Your task to perform on an android device: Open Yahoo.com Image 0: 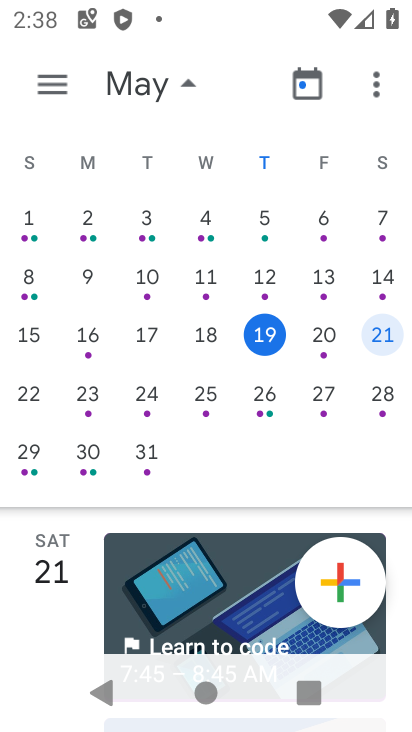
Step 0: drag from (231, 511) to (274, 184)
Your task to perform on an android device: Open Yahoo.com Image 1: 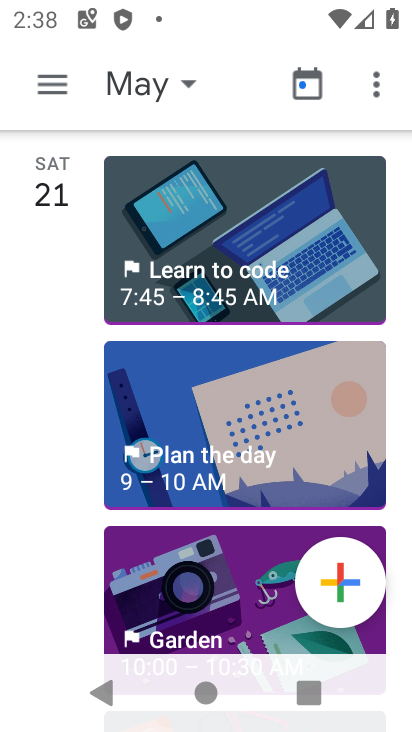
Step 1: drag from (225, 167) to (196, 594)
Your task to perform on an android device: Open Yahoo.com Image 2: 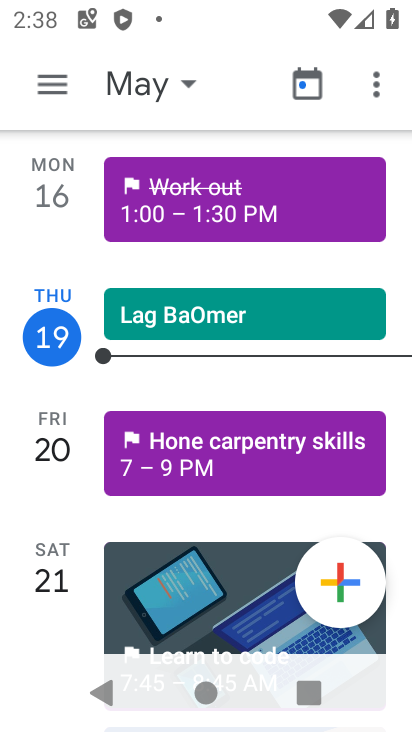
Step 2: click (182, 79)
Your task to perform on an android device: Open Yahoo.com Image 3: 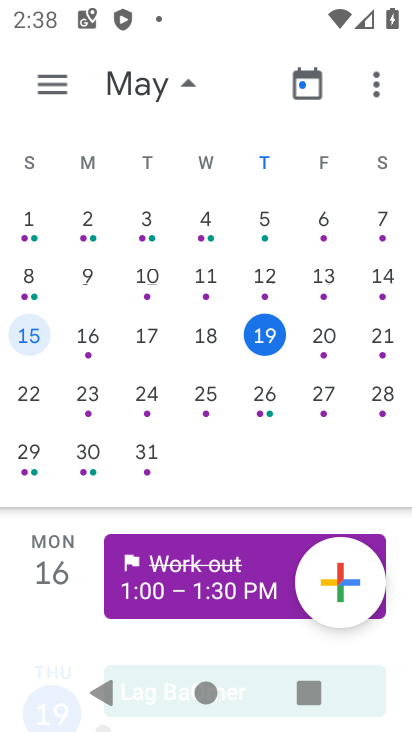
Step 3: press home button
Your task to perform on an android device: Open Yahoo.com Image 4: 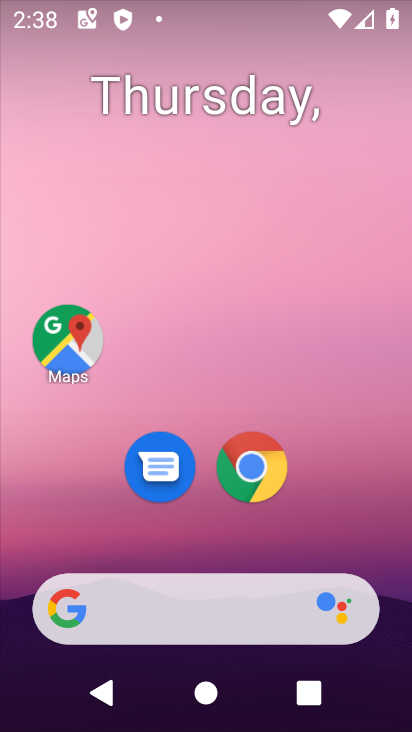
Step 4: click (195, 581)
Your task to perform on an android device: Open Yahoo.com Image 5: 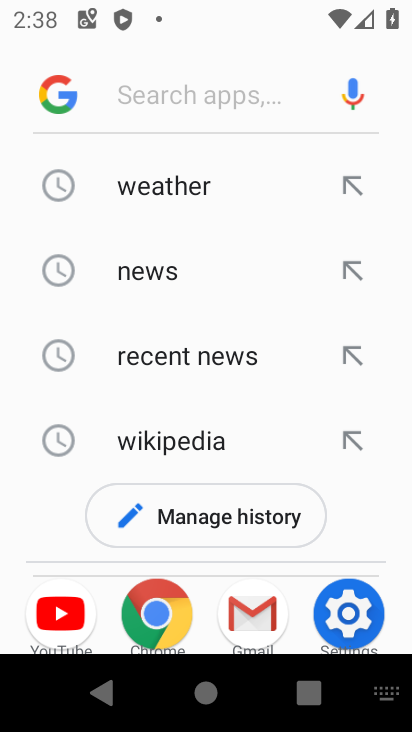
Step 5: type "Yahoo.com"
Your task to perform on an android device: Open Yahoo.com Image 6: 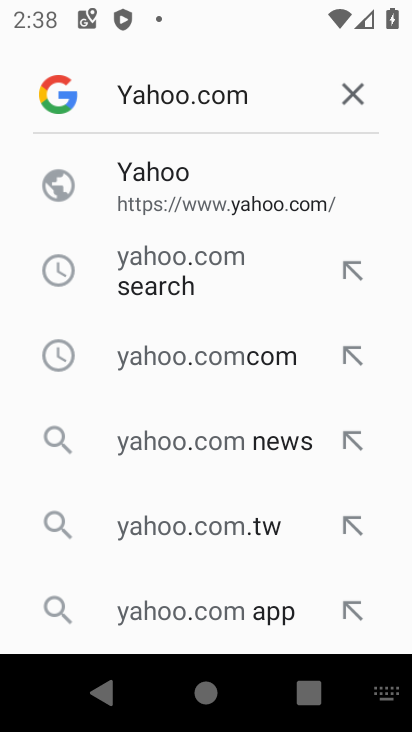
Step 6: click (104, 169)
Your task to perform on an android device: Open Yahoo.com Image 7: 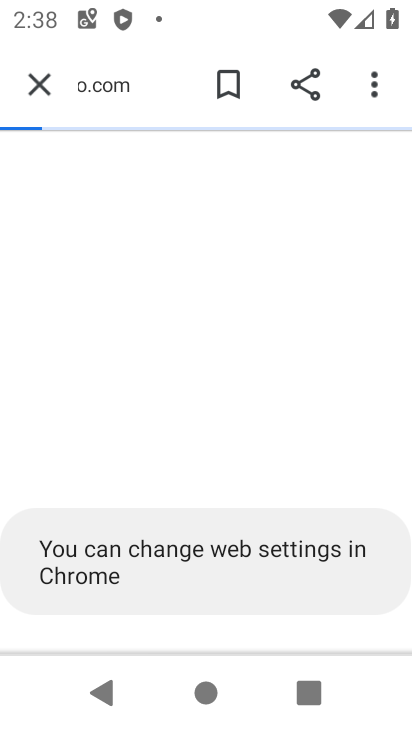
Step 7: click (197, 194)
Your task to perform on an android device: Open Yahoo.com Image 8: 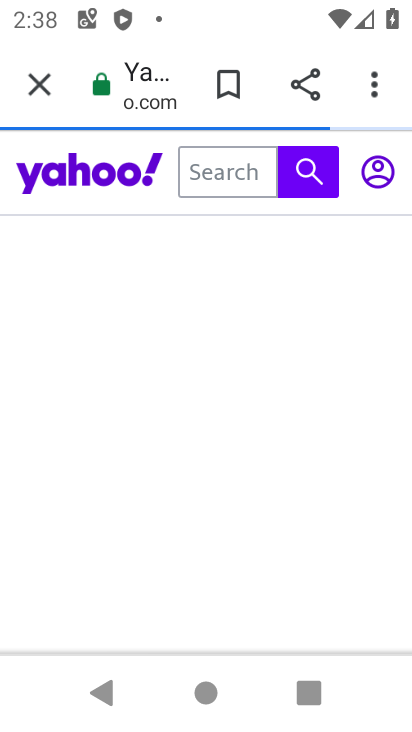
Step 8: task complete